Your task to perform on an android device: manage bookmarks in the chrome app Image 0: 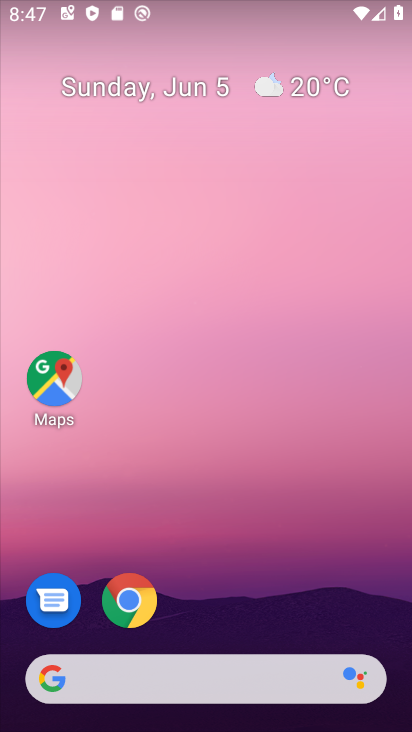
Step 0: click (138, 601)
Your task to perform on an android device: manage bookmarks in the chrome app Image 1: 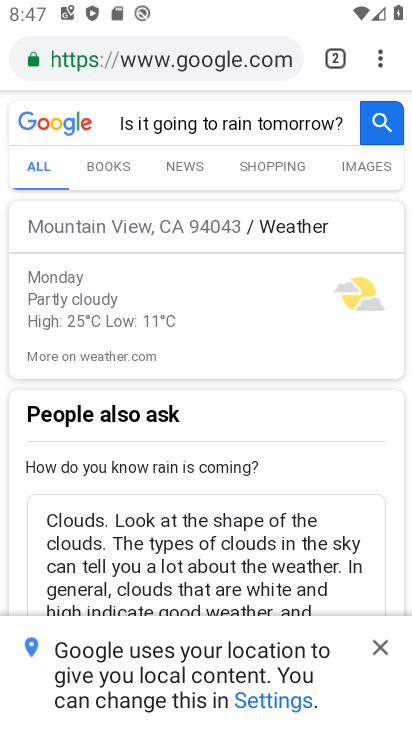
Step 1: click (382, 63)
Your task to perform on an android device: manage bookmarks in the chrome app Image 2: 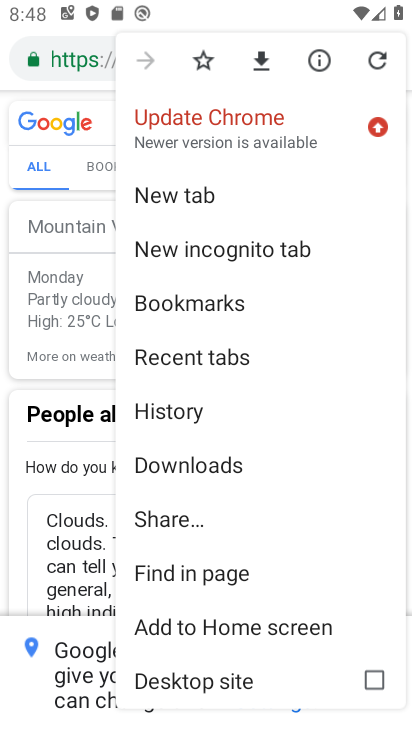
Step 2: click (211, 294)
Your task to perform on an android device: manage bookmarks in the chrome app Image 3: 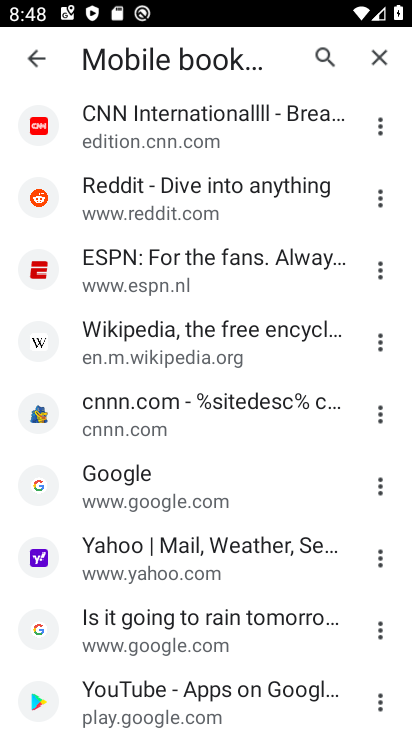
Step 3: click (378, 190)
Your task to perform on an android device: manage bookmarks in the chrome app Image 4: 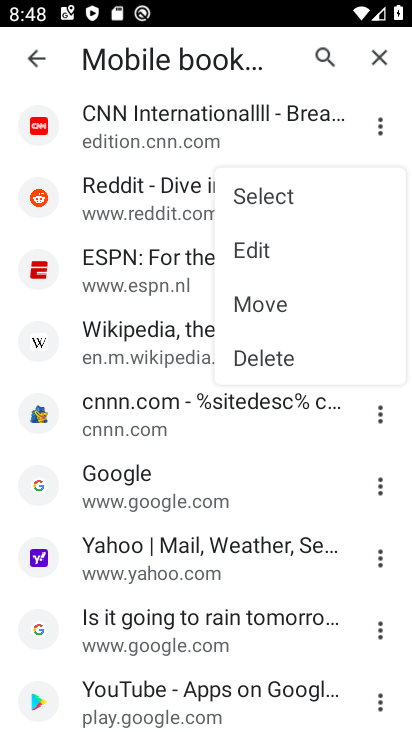
Step 4: click (318, 241)
Your task to perform on an android device: manage bookmarks in the chrome app Image 5: 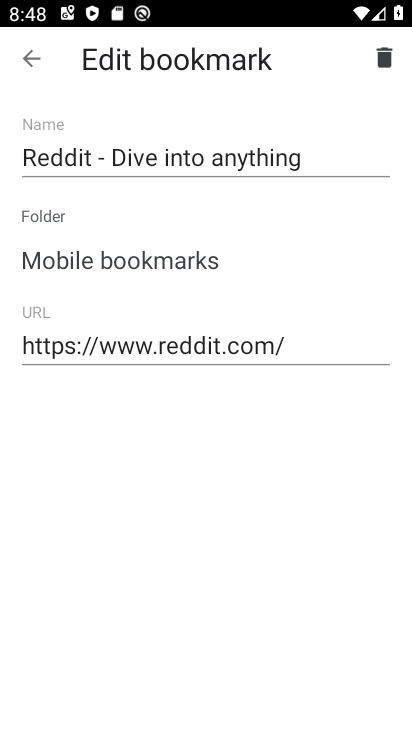
Step 5: task complete